Your task to perform on an android device: delete location history Image 0: 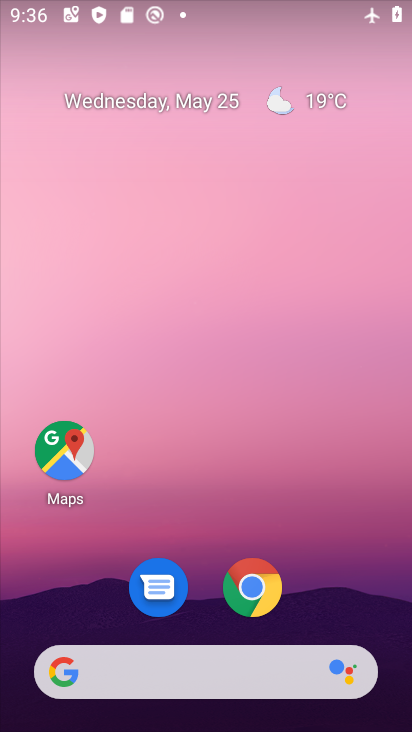
Step 0: click (60, 447)
Your task to perform on an android device: delete location history Image 1: 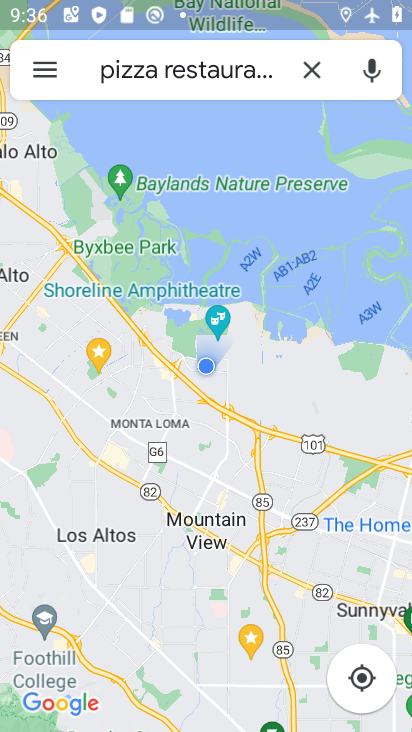
Step 1: click (311, 70)
Your task to perform on an android device: delete location history Image 2: 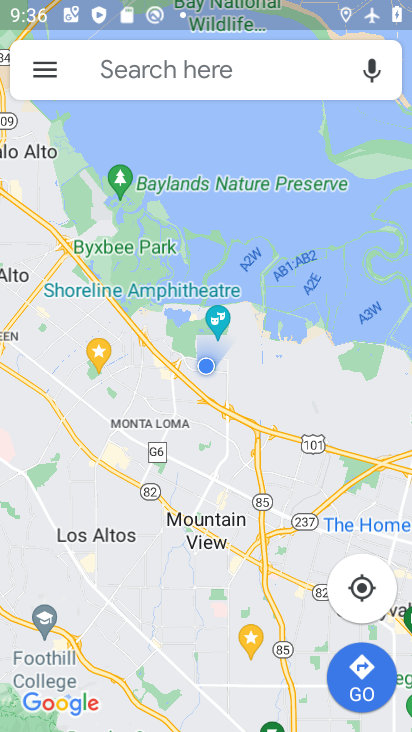
Step 2: click (46, 68)
Your task to perform on an android device: delete location history Image 3: 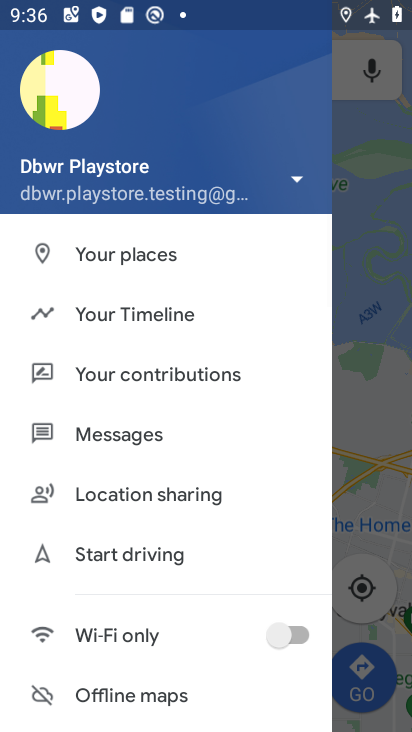
Step 3: drag from (211, 613) to (230, 64)
Your task to perform on an android device: delete location history Image 4: 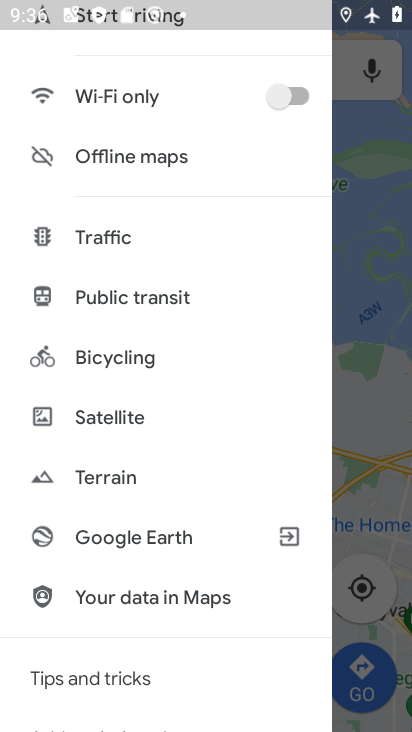
Step 4: drag from (223, 648) to (195, 302)
Your task to perform on an android device: delete location history Image 5: 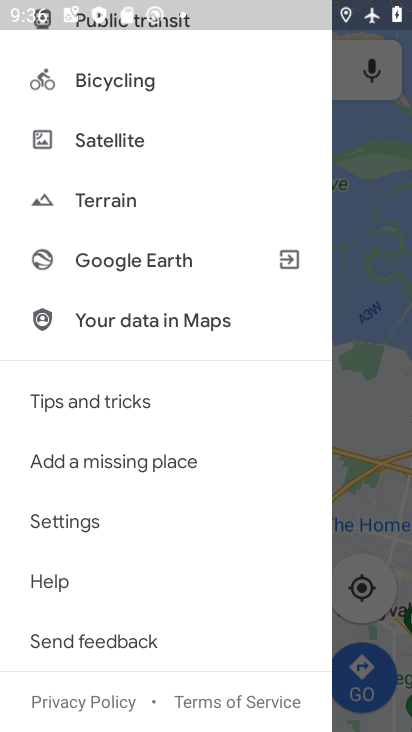
Step 5: click (60, 531)
Your task to perform on an android device: delete location history Image 6: 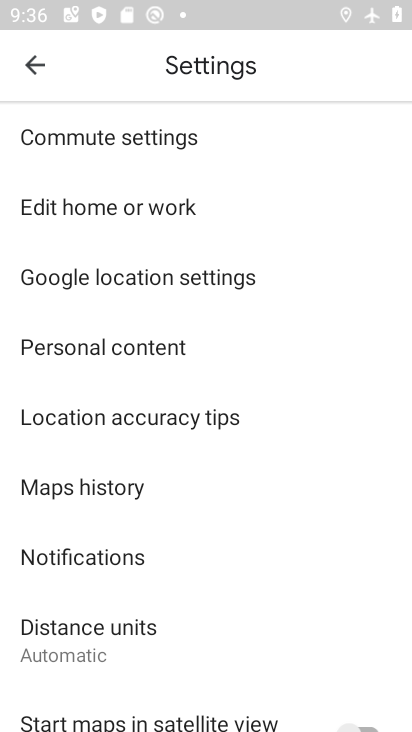
Step 6: click (109, 351)
Your task to perform on an android device: delete location history Image 7: 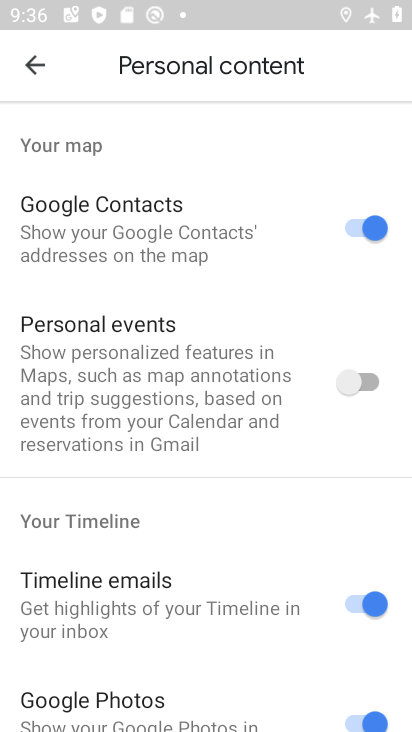
Step 7: drag from (245, 646) to (292, 139)
Your task to perform on an android device: delete location history Image 8: 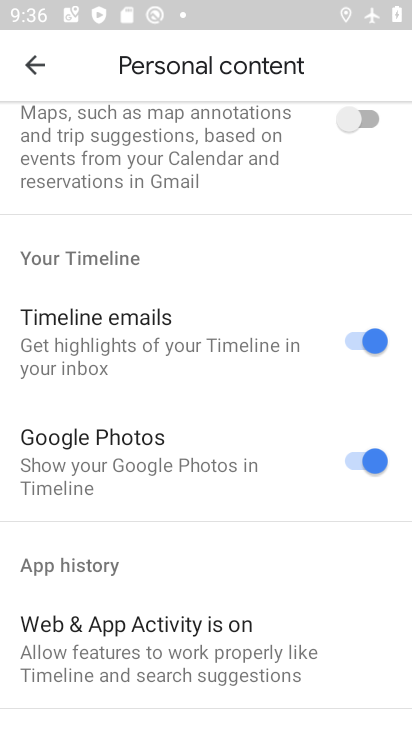
Step 8: drag from (299, 620) to (273, 155)
Your task to perform on an android device: delete location history Image 9: 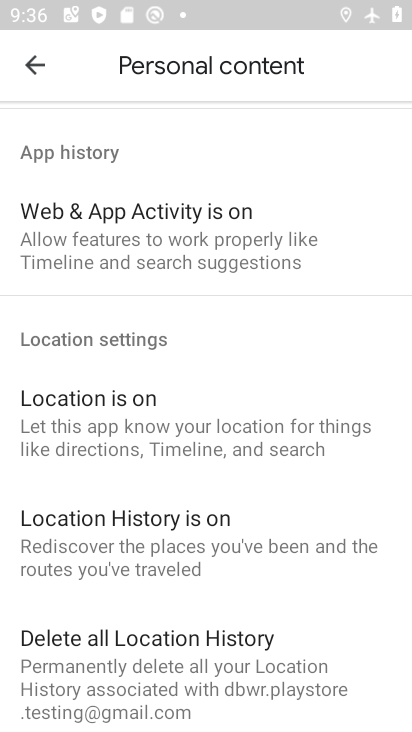
Step 9: click (121, 644)
Your task to perform on an android device: delete location history Image 10: 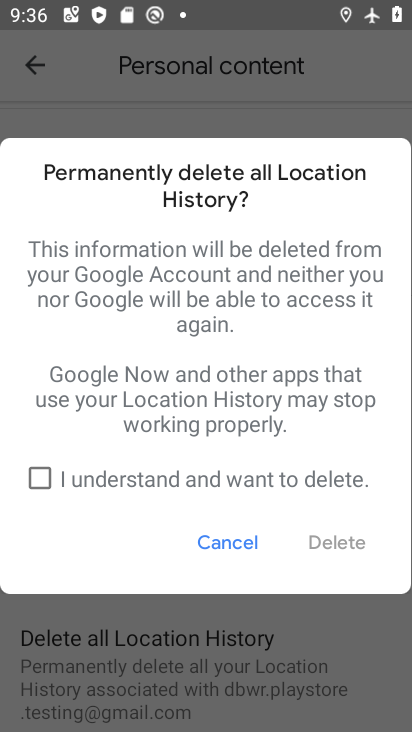
Step 10: click (48, 473)
Your task to perform on an android device: delete location history Image 11: 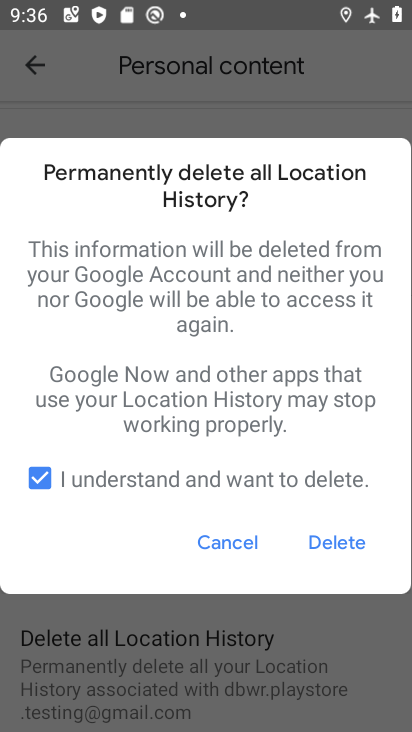
Step 11: click (328, 538)
Your task to perform on an android device: delete location history Image 12: 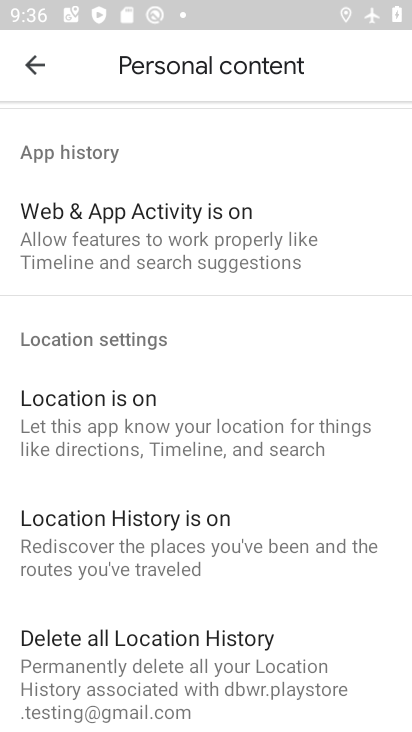
Step 12: task complete